Your task to perform on an android device: check the backup settings in the google photos Image 0: 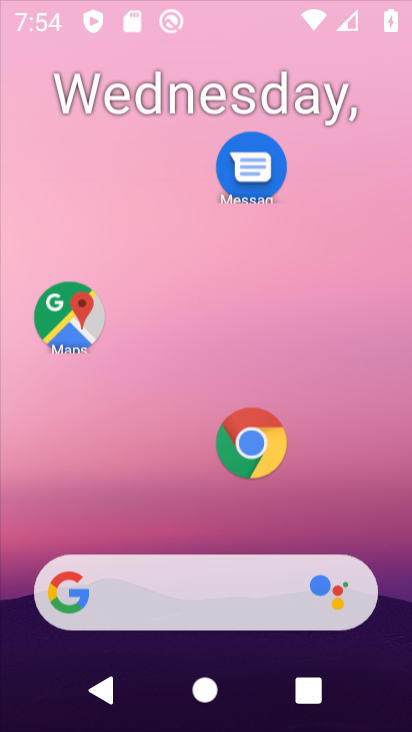
Step 0: click (243, 148)
Your task to perform on an android device: check the backup settings in the google photos Image 1: 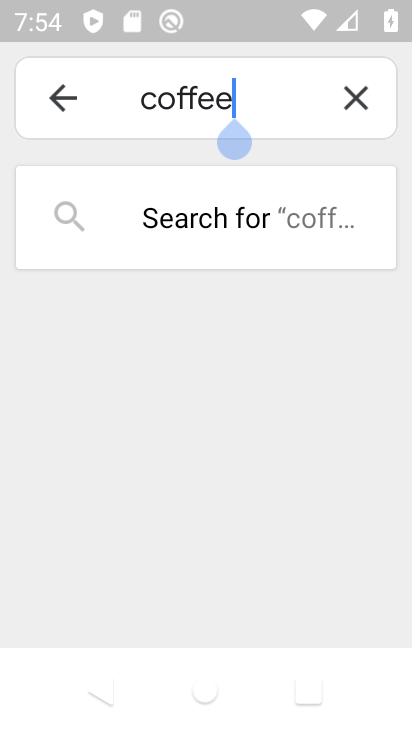
Step 1: drag from (255, 656) to (232, 66)
Your task to perform on an android device: check the backup settings in the google photos Image 2: 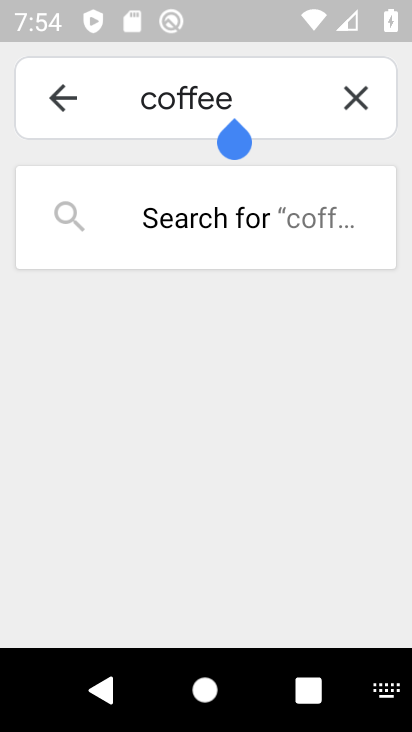
Step 2: click (69, 99)
Your task to perform on an android device: check the backup settings in the google photos Image 3: 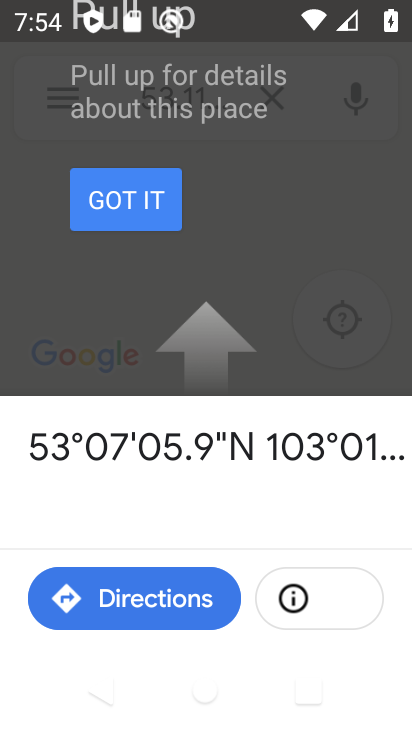
Step 3: press back button
Your task to perform on an android device: check the backup settings in the google photos Image 4: 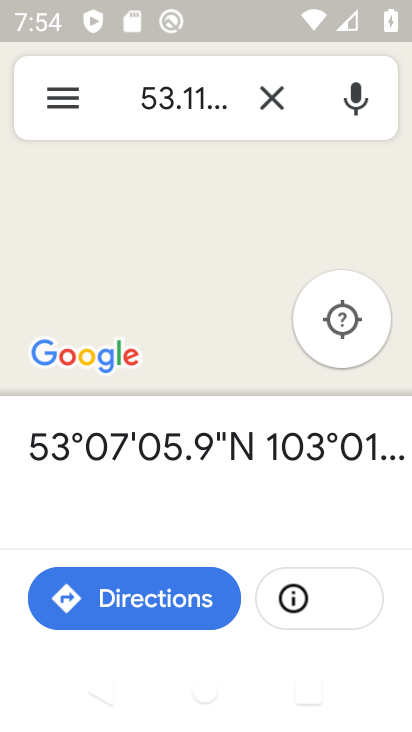
Step 4: press back button
Your task to perform on an android device: check the backup settings in the google photos Image 5: 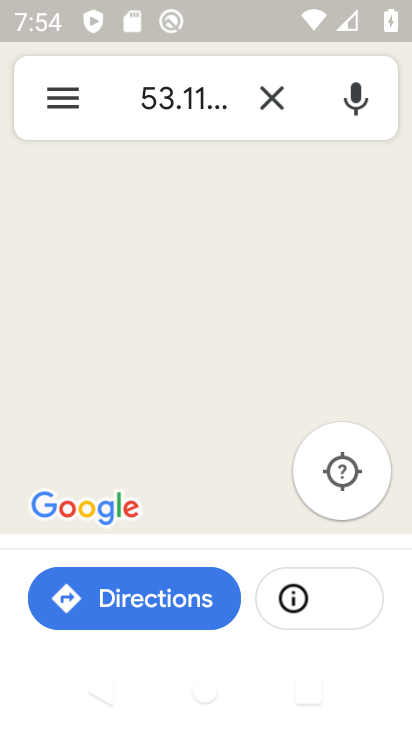
Step 5: press back button
Your task to perform on an android device: check the backup settings in the google photos Image 6: 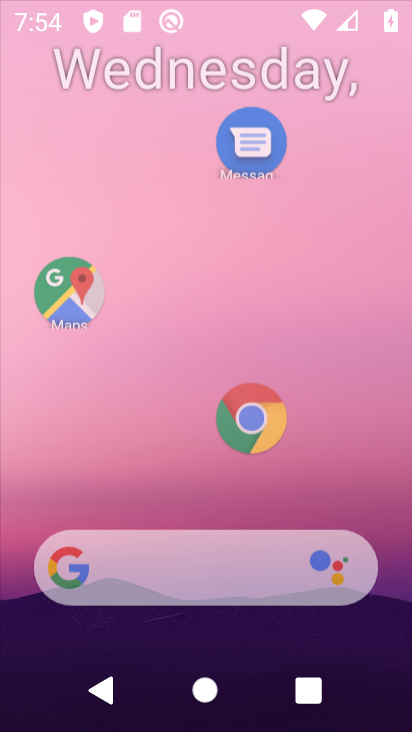
Step 6: press home button
Your task to perform on an android device: check the backup settings in the google photos Image 7: 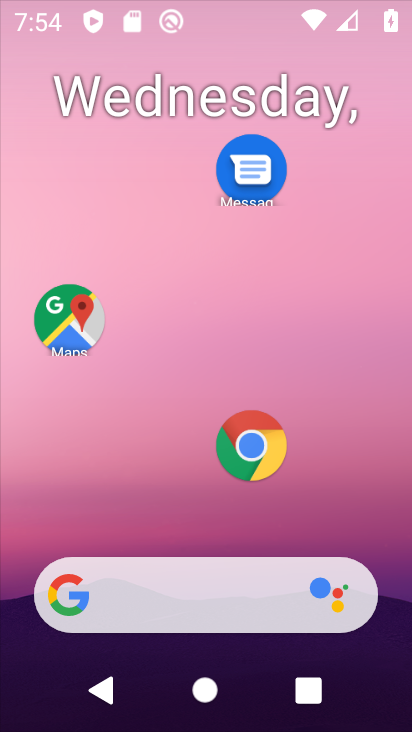
Step 7: press home button
Your task to perform on an android device: check the backup settings in the google photos Image 8: 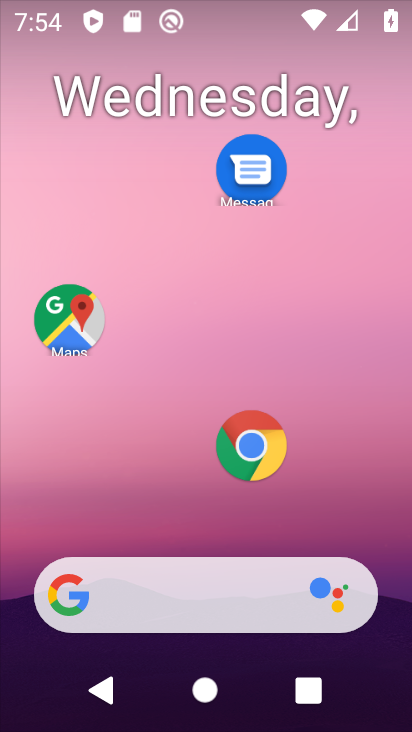
Step 8: drag from (259, 666) to (205, 265)
Your task to perform on an android device: check the backup settings in the google photos Image 9: 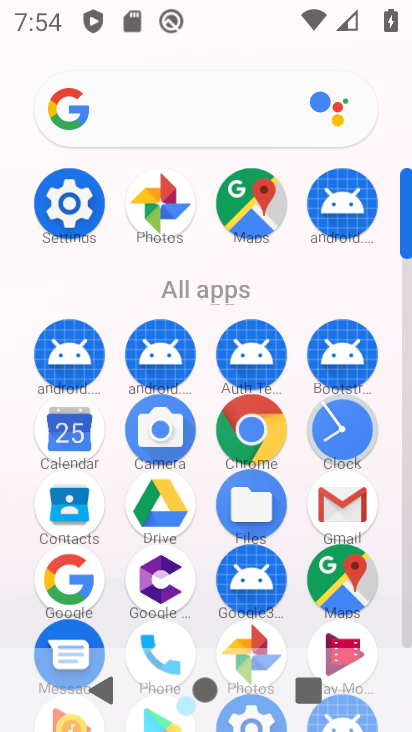
Step 9: drag from (288, 580) to (279, 268)
Your task to perform on an android device: check the backup settings in the google photos Image 10: 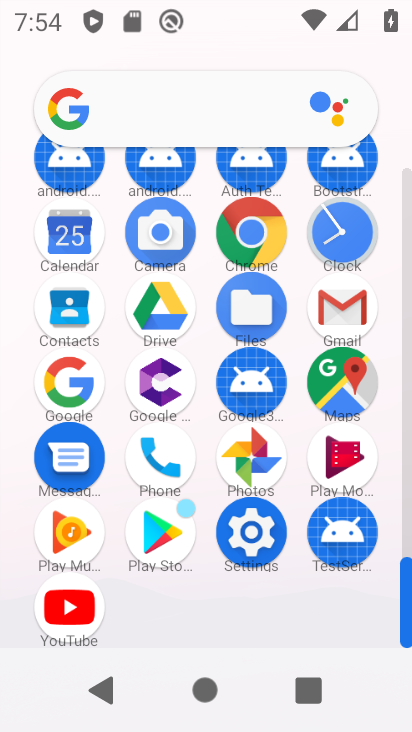
Step 10: drag from (276, 525) to (313, 334)
Your task to perform on an android device: check the backup settings in the google photos Image 11: 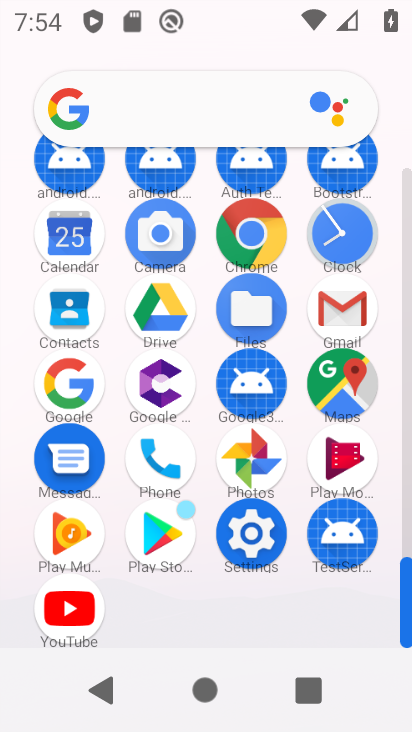
Step 11: click (251, 444)
Your task to perform on an android device: check the backup settings in the google photos Image 12: 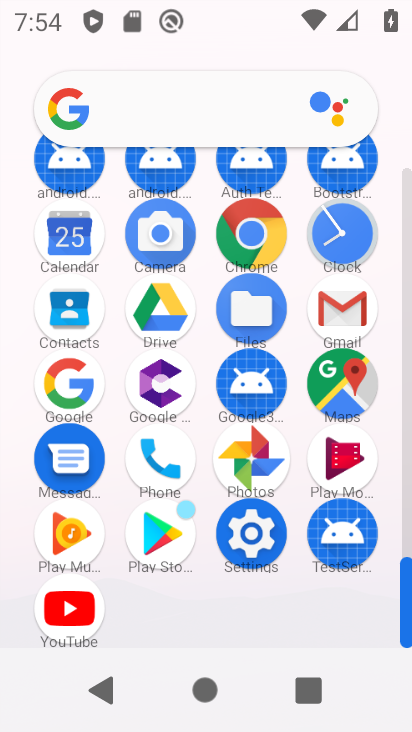
Step 12: click (251, 444)
Your task to perform on an android device: check the backup settings in the google photos Image 13: 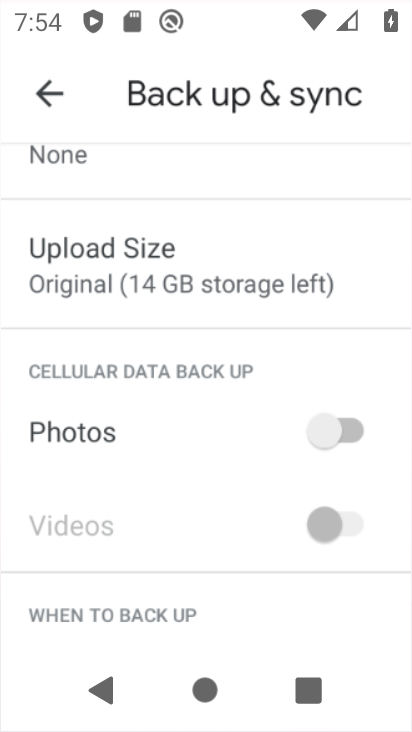
Step 13: click (254, 441)
Your task to perform on an android device: check the backup settings in the google photos Image 14: 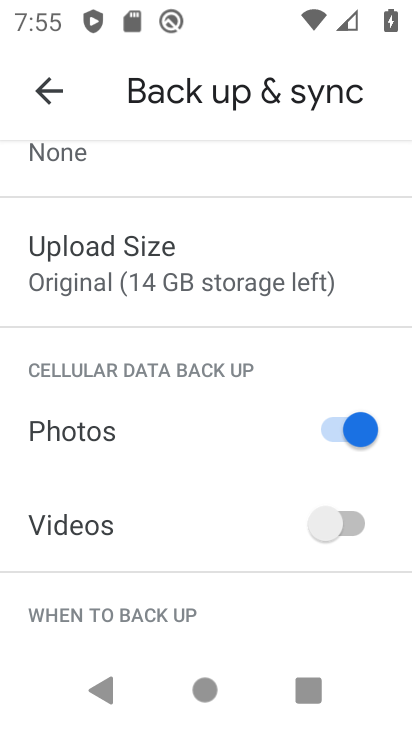
Step 14: click (353, 420)
Your task to perform on an android device: check the backup settings in the google photos Image 15: 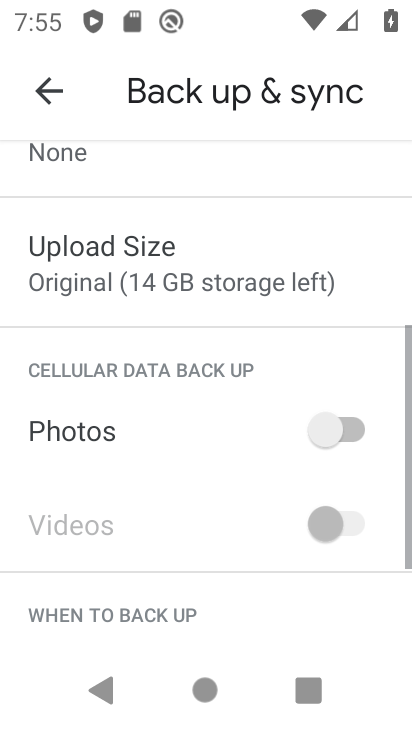
Step 15: drag from (145, 283) to (149, 534)
Your task to perform on an android device: check the backup settings in the google photos Image 16: 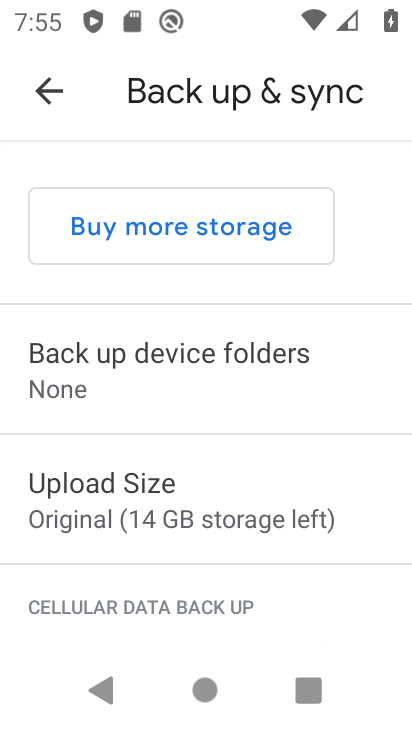
Step 16: click (151, 350)
Your task to perform on an android device: check the backup settings in the google photos Image 17: 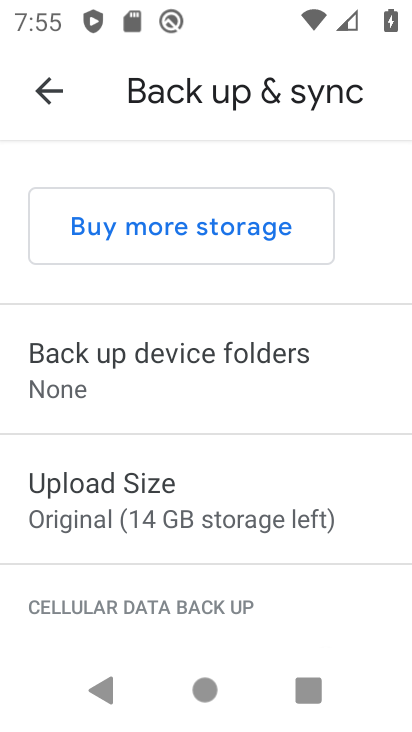
Step 17: click (151, 350)
Your task to perform on an android device: check the backup settings in the google photos Image 18: 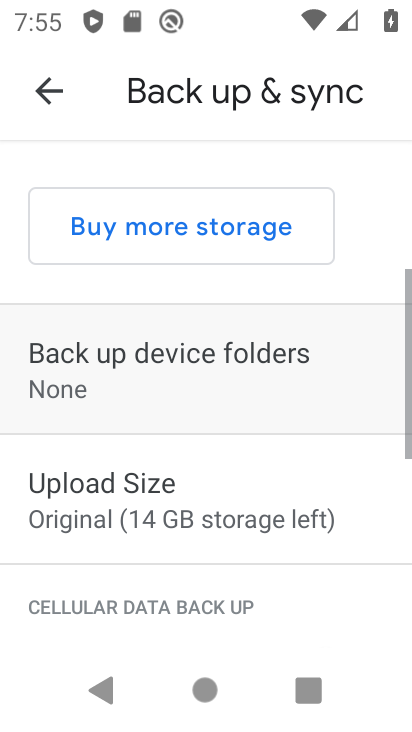
Step 18: click (151, 350)
Your task to perform on an android device: check the backup settings in the google photos Image 19: 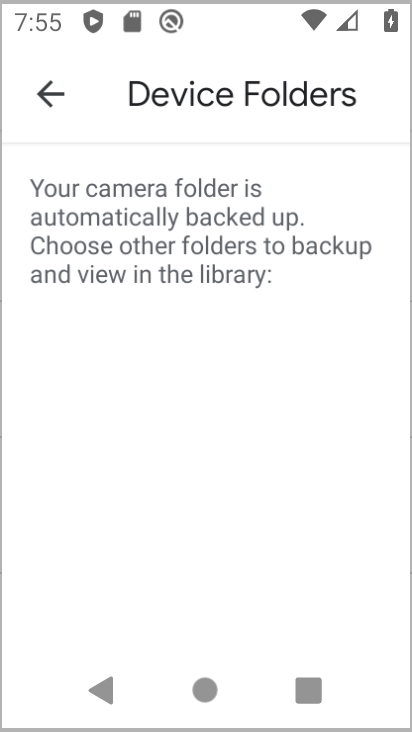
Step 19: click (151, 350)
Your task to perform on an android device: check the backup settings in the google photos Image 20: 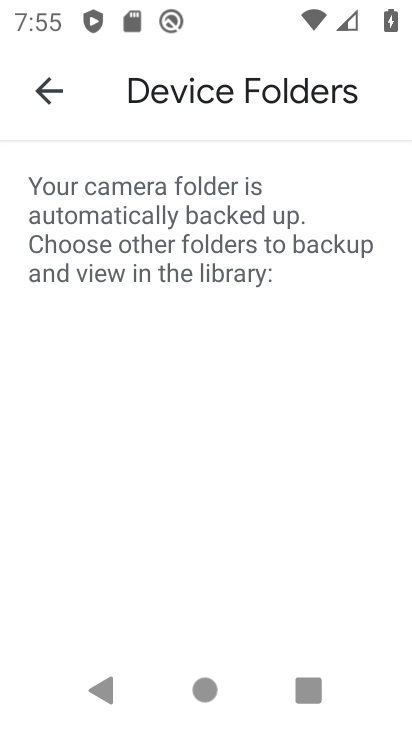
Step 20: click (46, 94)
Your task to perform on an android device: check the backup settings in the google photos Image 21: 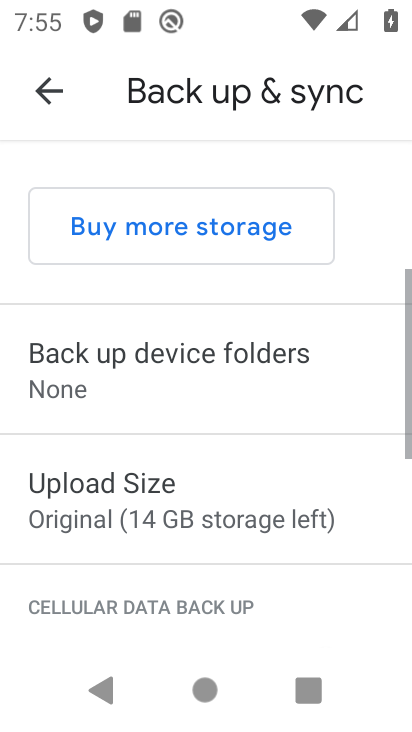
Step 21: drag from (172, 311) to (170, 648)
Your task to perform on an android device: check the backup settings in the google photos Image 22: 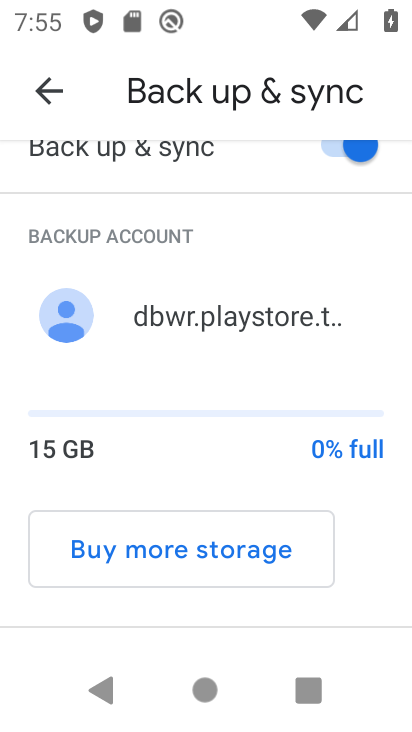
Step 22: drag from (162, 265) to (164, 653)
Your task to perform on an android device: check the backup settings in the google photos Image 23: 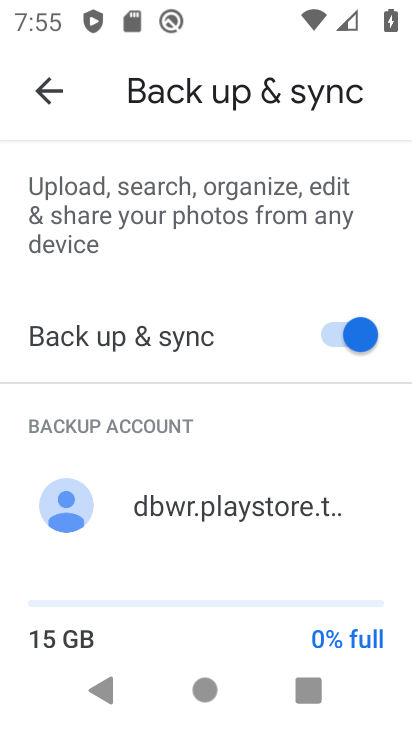
Step 23: click (178, 203)
Your task to perform on an android device: check the backup settings in the google photos Image 24: 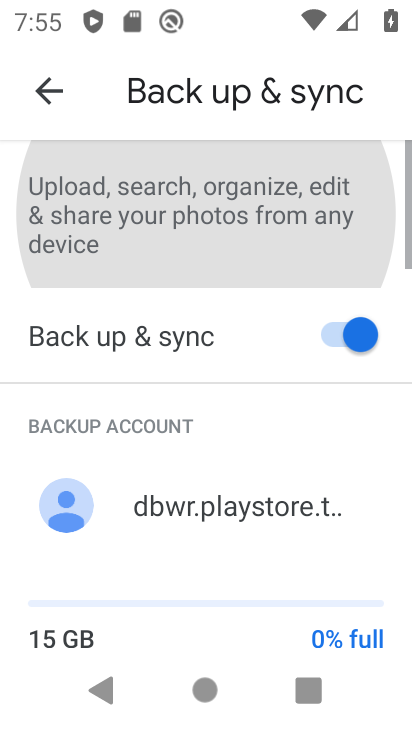
Step 24: click (178, 203)
Your task to perform on an android device: check the backup settings in the google photos Image 25: 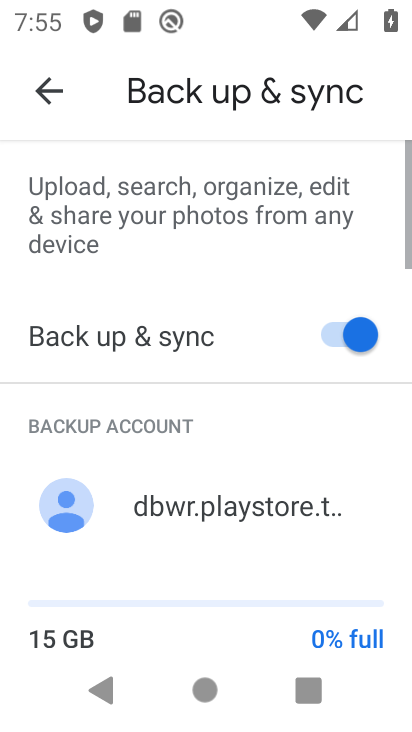
Step 25: click (339, 331)
Your task to perform on an android device: check the backup settings in the google photos Image 26: 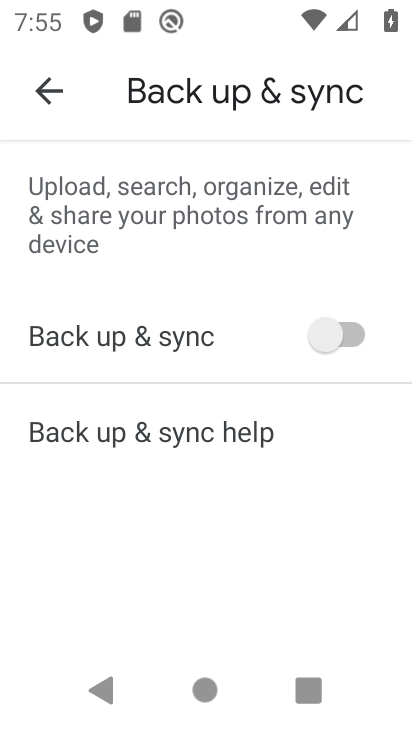
Step 26: click (307, 336)
Your task to perform on an android device: check the backup settings in the google photos Image 27: 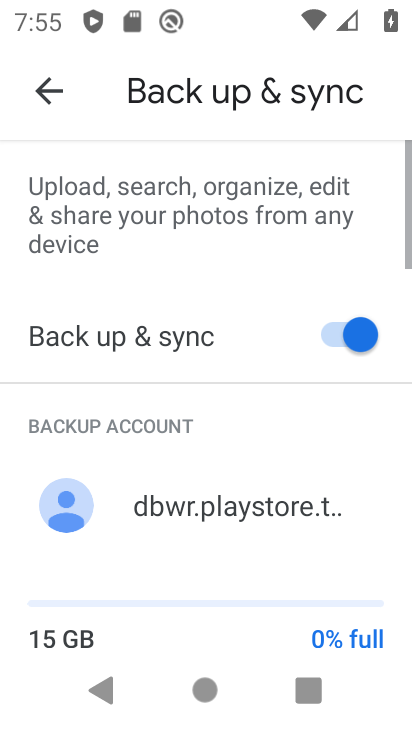
Step 27: task complete